Your task to perform on an android device: Go to Reddit.com Image 0: 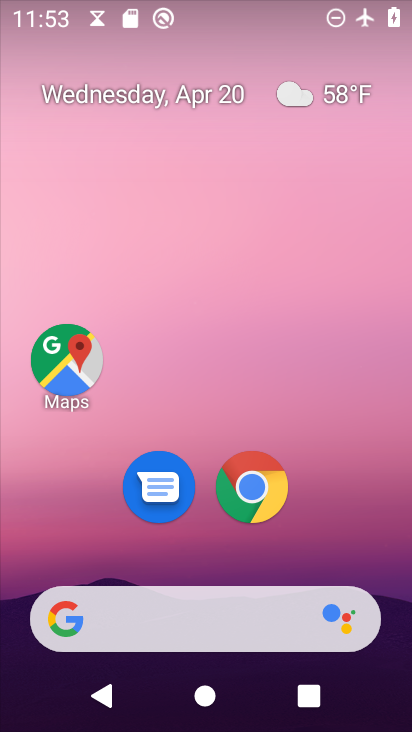
Step 0: drag from (352, 526) to (238, 90)
Your task to perform on an android device: Go to Reddit.com Image 1: 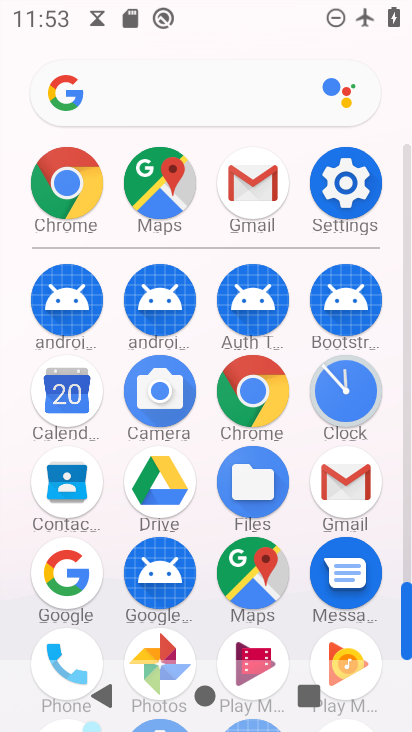
Step 1: click (251, 390)
Your task to perform on an android device: Go to Reddit.com Image 2: 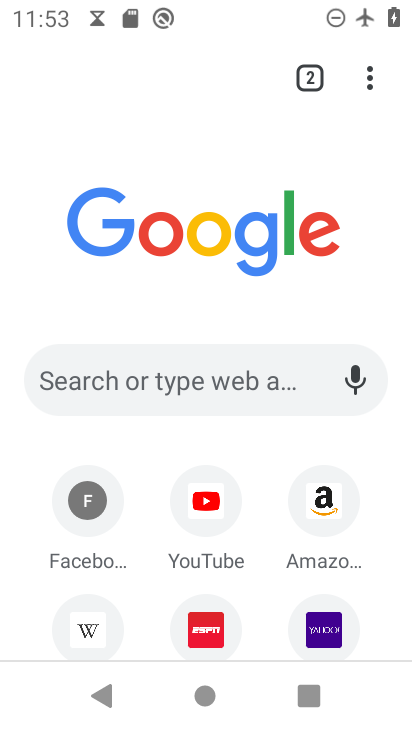
Step 2: drag from (44, 529) to (35, 373)
Your task to perform on an android device: Go to Reddit.com Image 3: 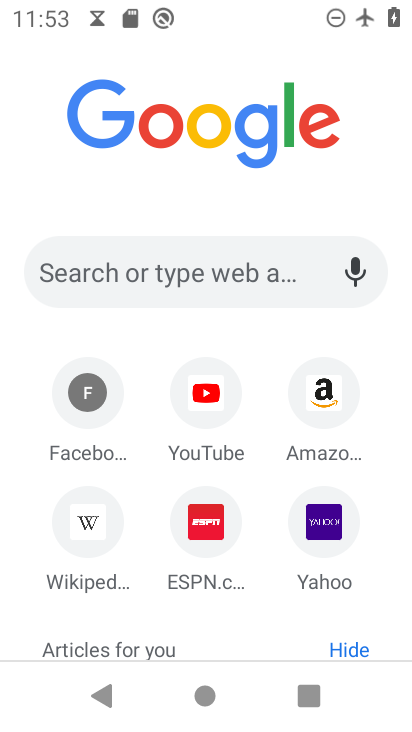
Step 3: click (243, 282)
Your task to perform on an android device: Go to Reddit.com Image 4: 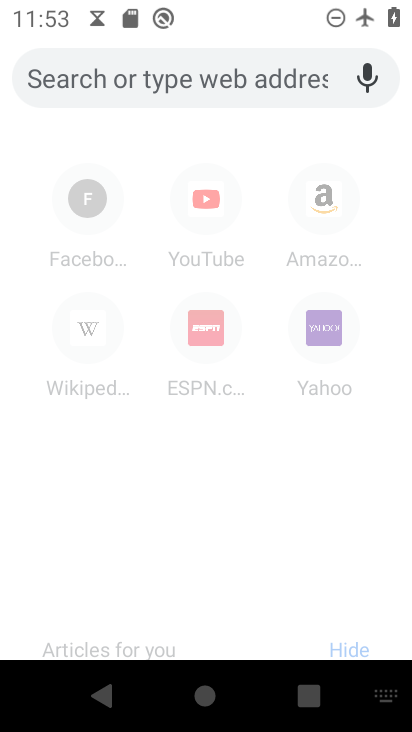
Step 4: type "Reddit"
Your task to perform on an android device: Go to Reddit.com Image 5: 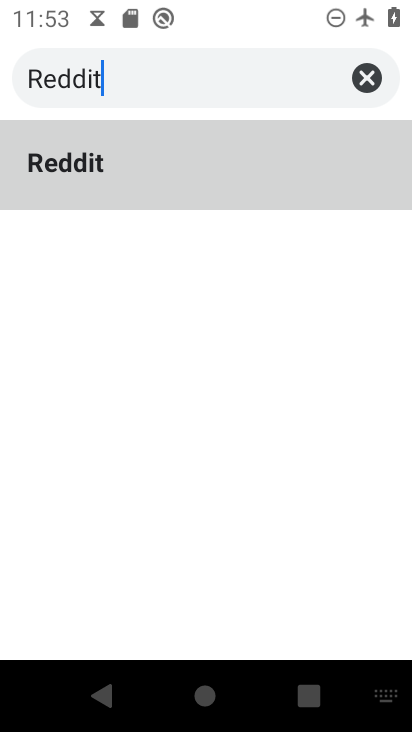
Step 5: type ""
Your task to perform on an android device: Go to Reddit.com Image 6: 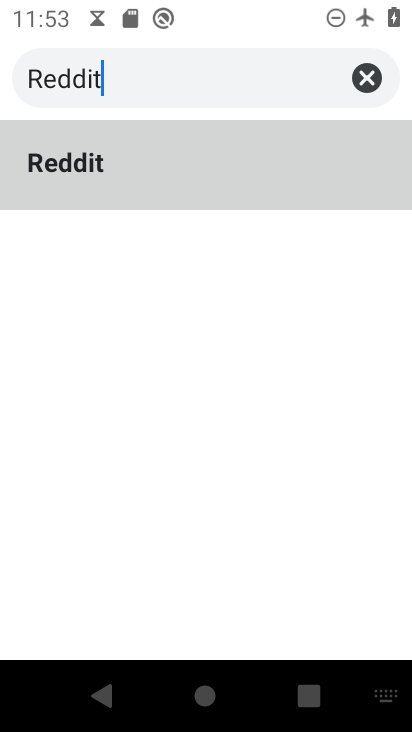
Step 6: click (268, 161)
Your task to perform on an android device: Go to Reddit.com Image 7: 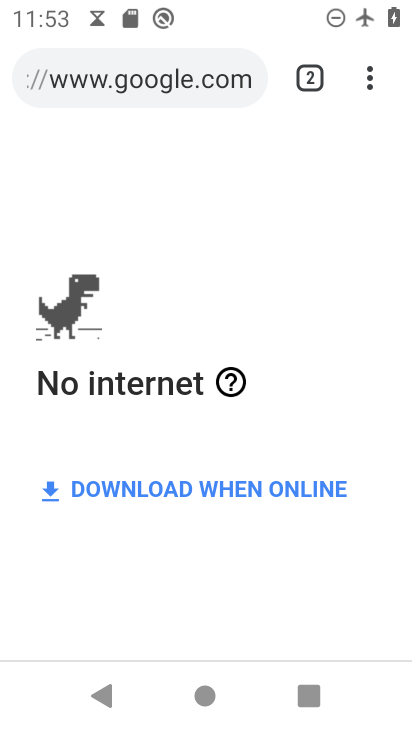
Step 7: task complete